Your task to perform on an android device: open app "Move to iOS" Image 0: 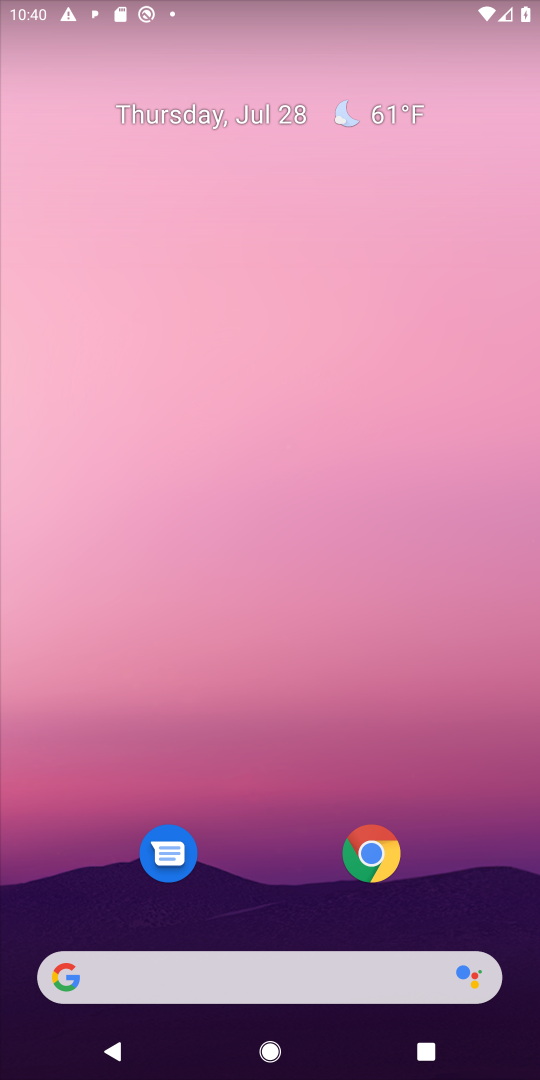
Step 0: drag from (201, 1046) to (351, 56)
Your task to perform on an android device: open app "Move to iOS" Image 1: 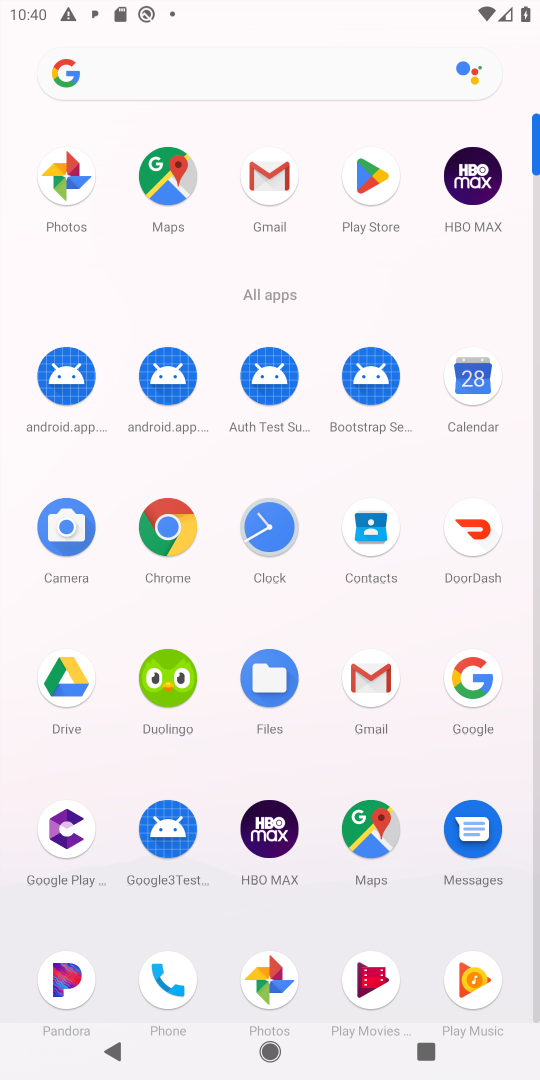
Step 1: click (376, 181)
Your task to perform on an android device: open app "Move to iOS" Image 2: 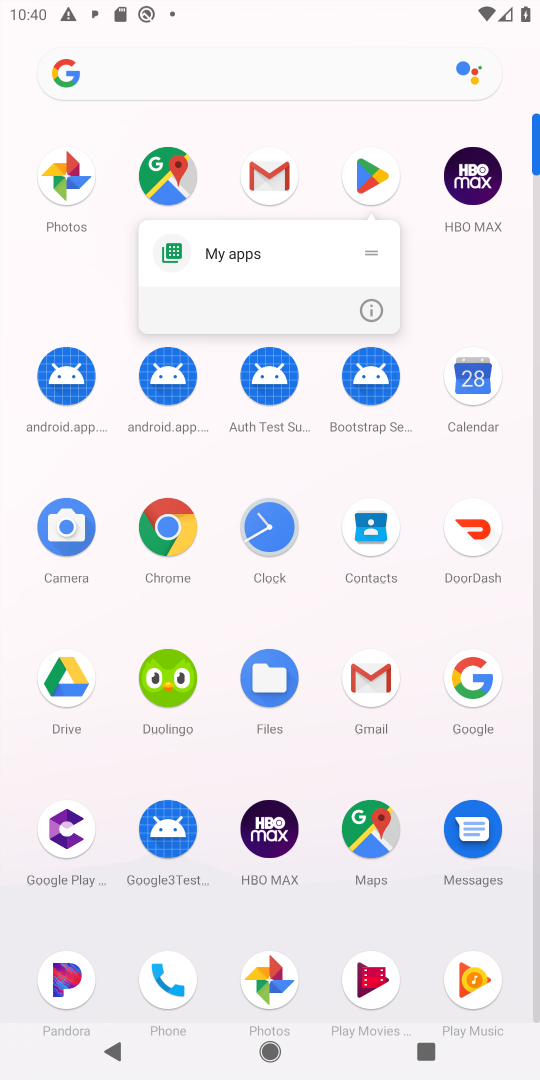
Step 2: click (376, 181)
Your task to perform on an android device: open app "Move to iOS" Image 3: 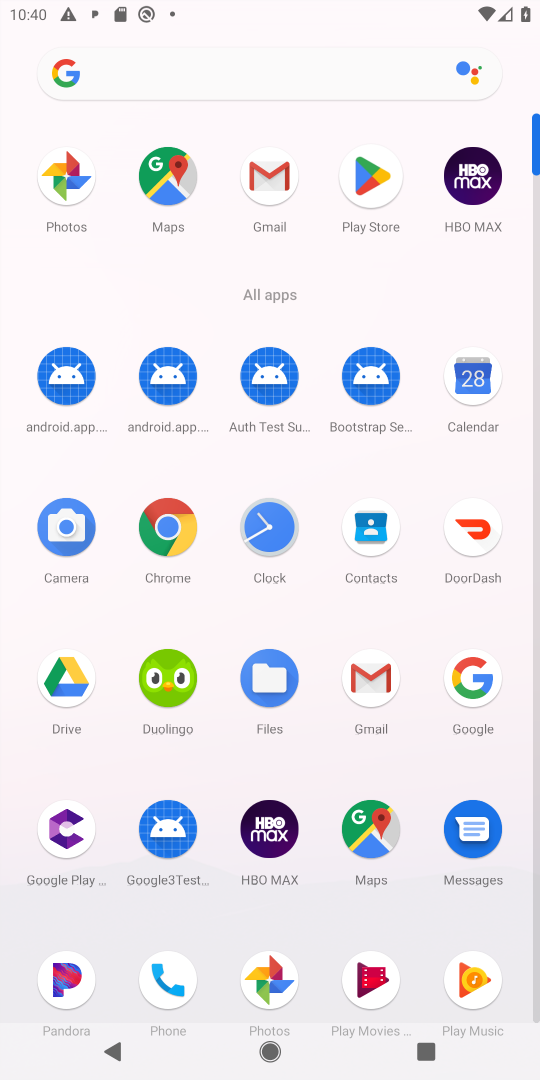
Step 3: click (376, 181)
Your task to perform on an android device: open app "Move to iOS" Image 4: 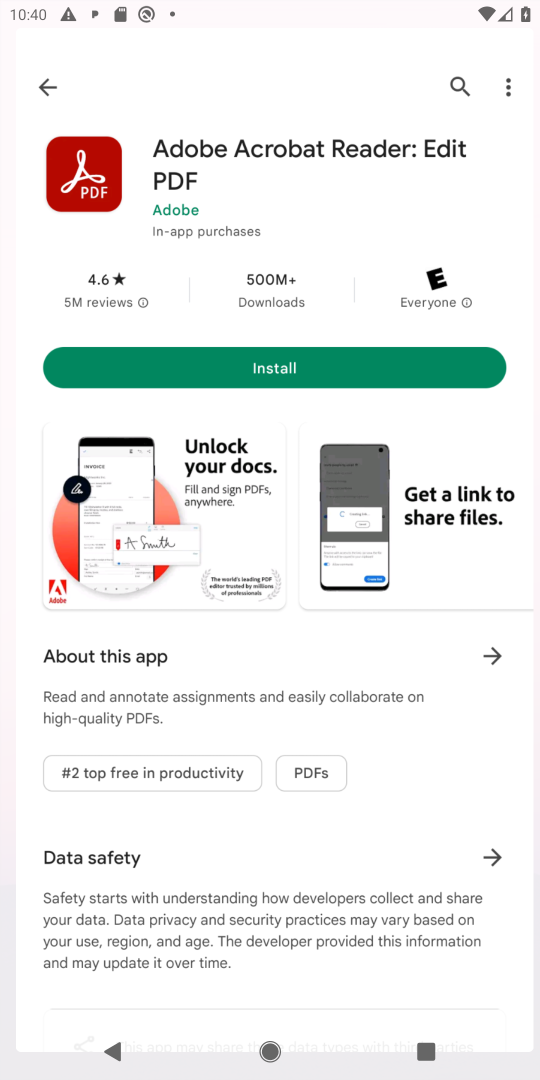
Step 4: click (376, 181)
Your task to perform on an android device: open app "Move to iOS" Image 5: 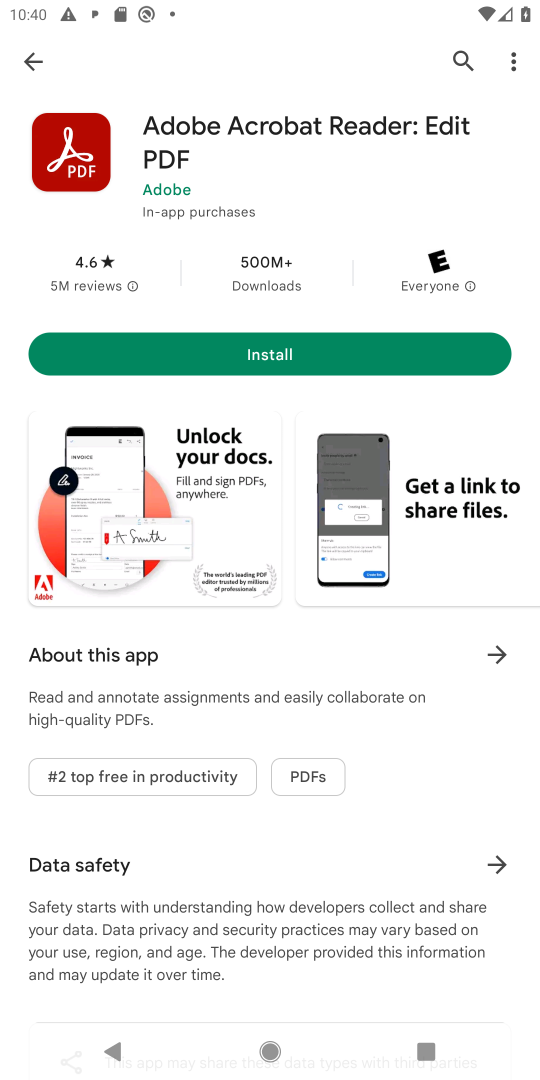
Step 5: click (464, 63)
Your task to perform on an android device: open app "Move to iOS" Image 6: 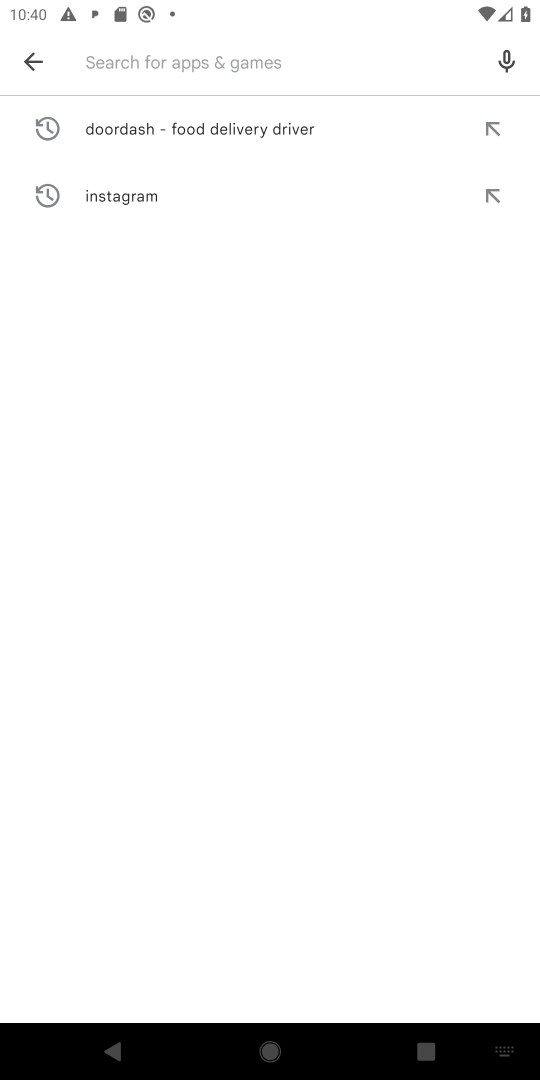
Step 6: type "Move to iOS"
Your task to perform on an android device: open app "Move to iOS" Image 7: 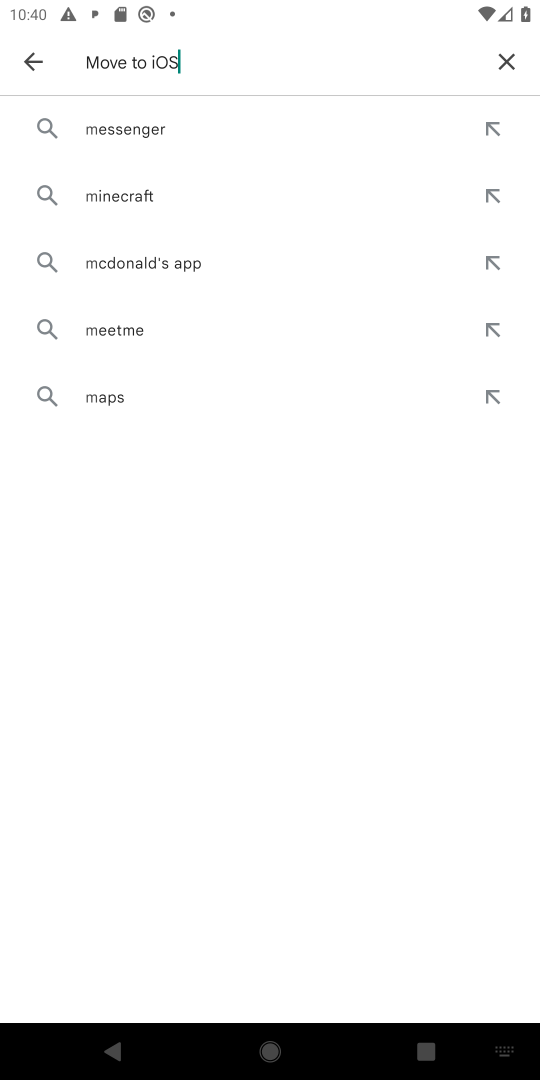
Step 7: type ""
Your task to perform on an android device: open app "Move to iOS" Image 8: 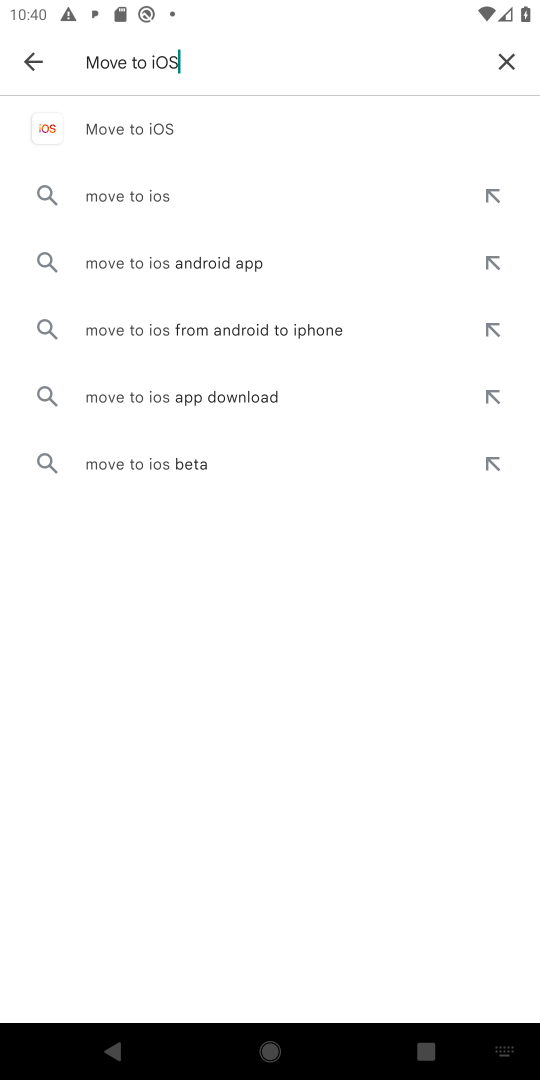
Step 8: click (221, 128)
Your task to perform on an android device: open app "Move to iOS" Image 9: 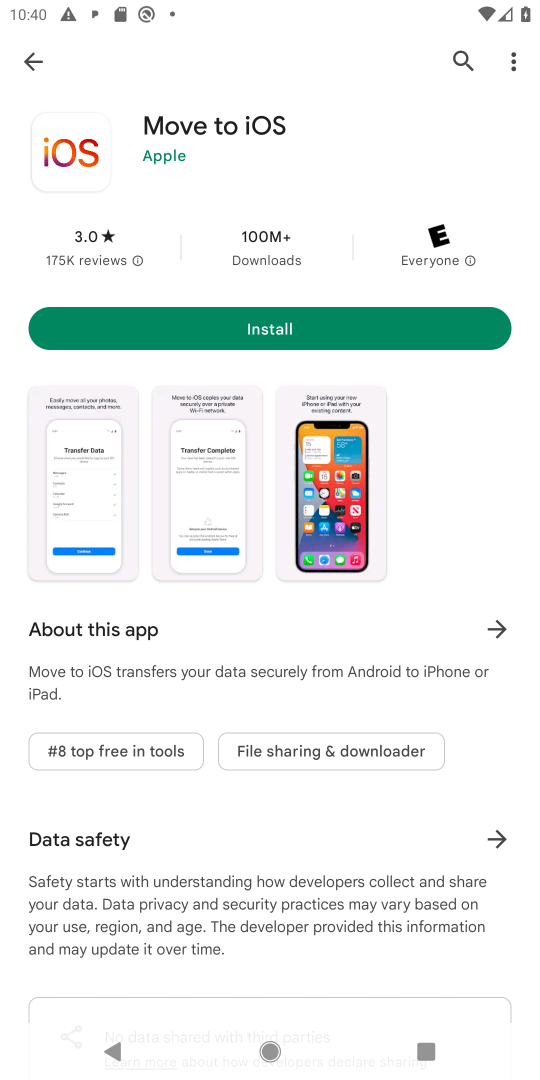
Step 9: task complete